Your task to perform on an android device: Go to calendar. Show me events next week Image 0: 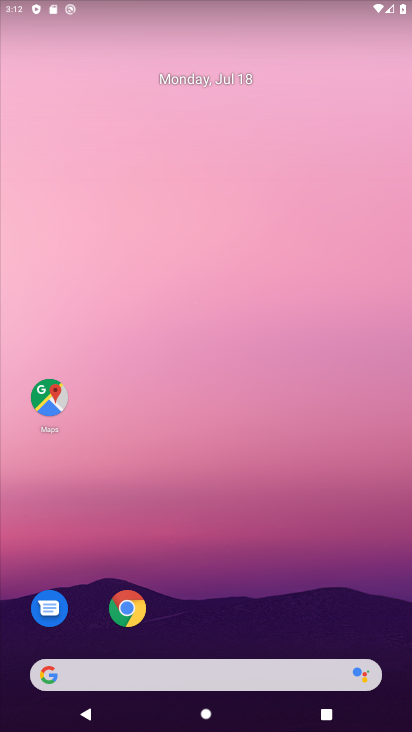
Step 0: drag from (323, 603) to (340, 63)
Your task to perform on an android device: Go to calendar. Show me events next week Image 1: 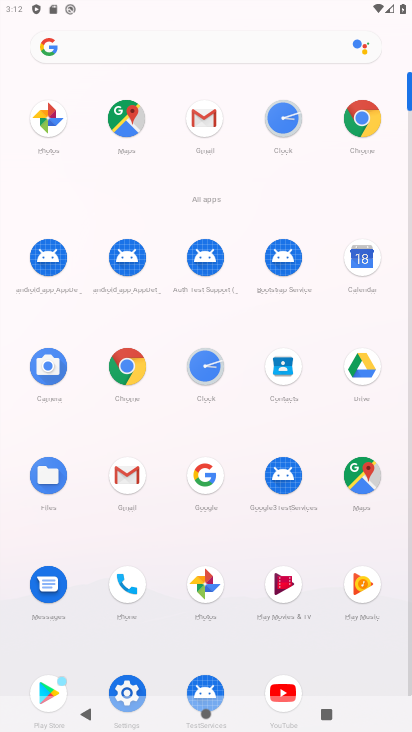
Step 1: click (365, 252)
Your task to perform on an android device: Go to calendar. Show me events next week Image 2: 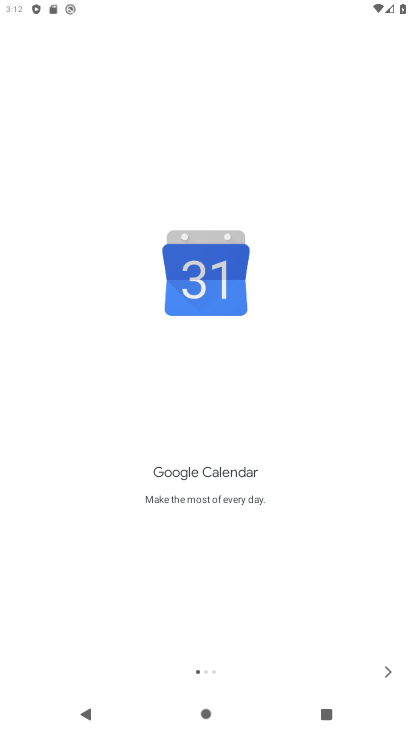
Step 2: click (392, 672)
Your task to perform on an android device: Go to calendar. Show me events next week Image 3: 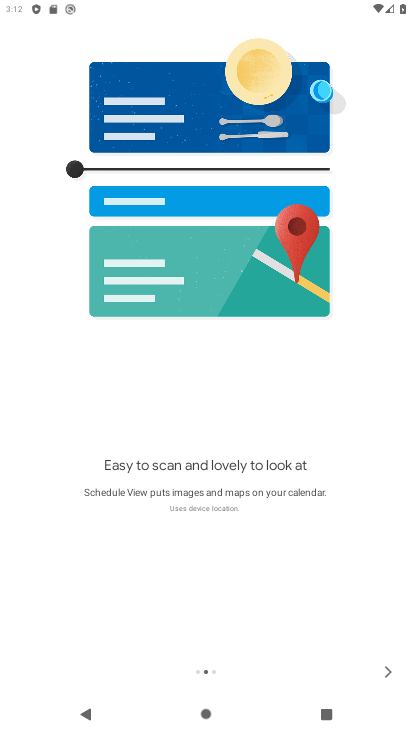
Step 3: click (391, 670)
Your task to perform on an android device: Go to calendar. Show me events next week Image 4: 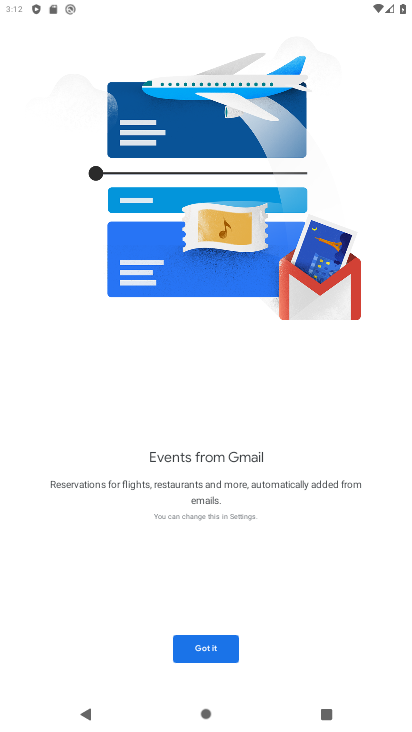
Step 4: click (196, 647)
Your task to perform on an android device: Go to calendar. Show me events next week Image 5: 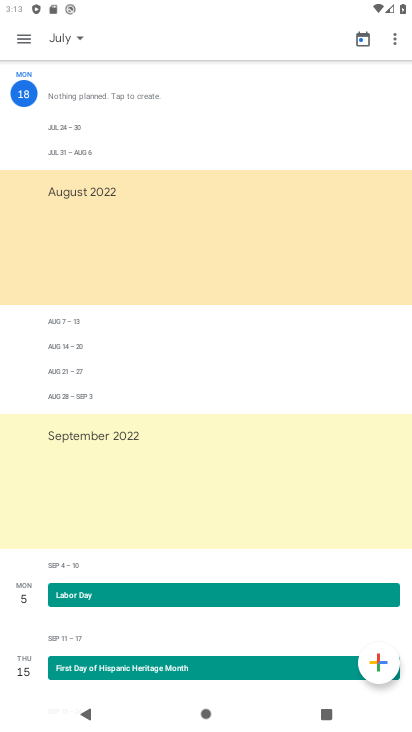
Step 5: click (70, 32)
Your task to perform on an android device: Go to calendar. Show me events next week Image 6: 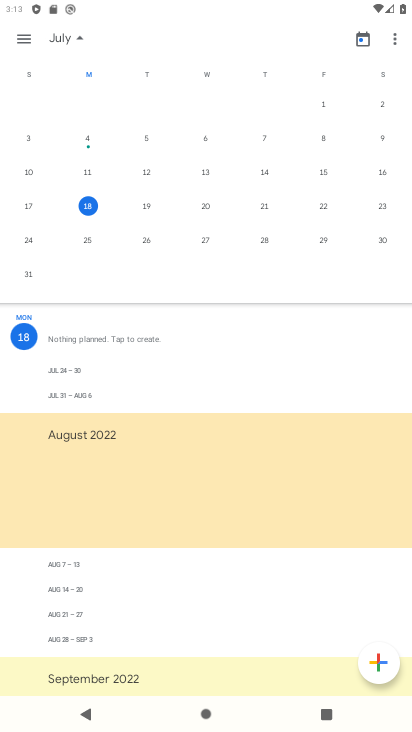
Step 6: click (91, 236)
Your task to perform on an android device: Go to calendar. Show me events next week Image 7: 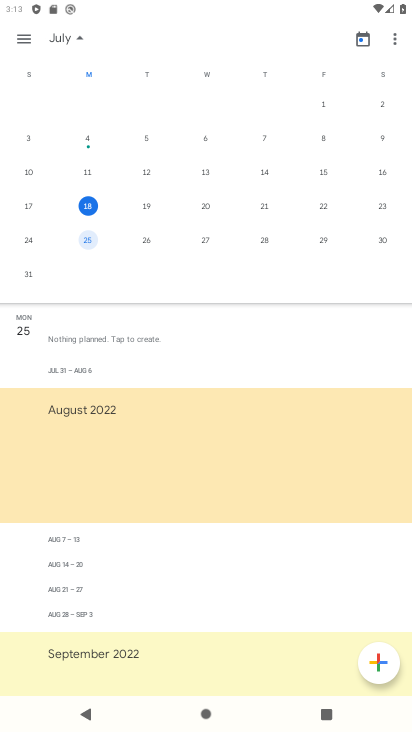
Step 7: click (25, 41)
Your task to perform on an android device: Go to calendar. Show me events next week Image 8: 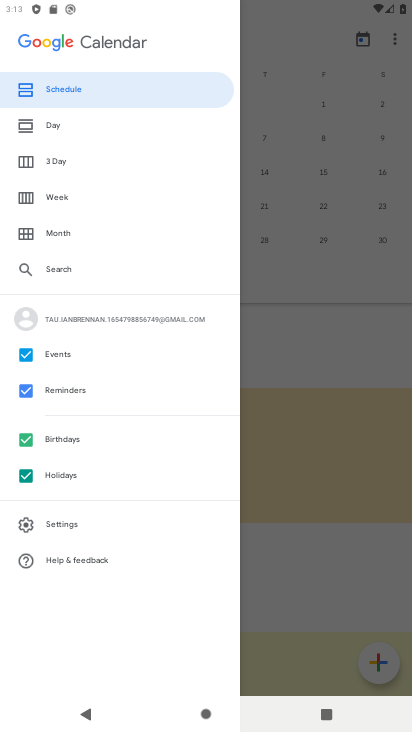
Step 8: click (46, 188)
Your task to perform on an android device: Go to calendar. Show me events next week Image 9: 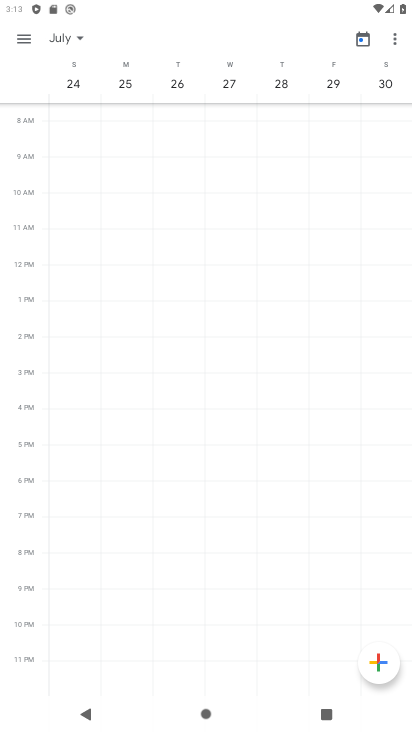
Step 9: task complete